Your task to perform on an android device: manage bookmarks in the chrome app Image 0: 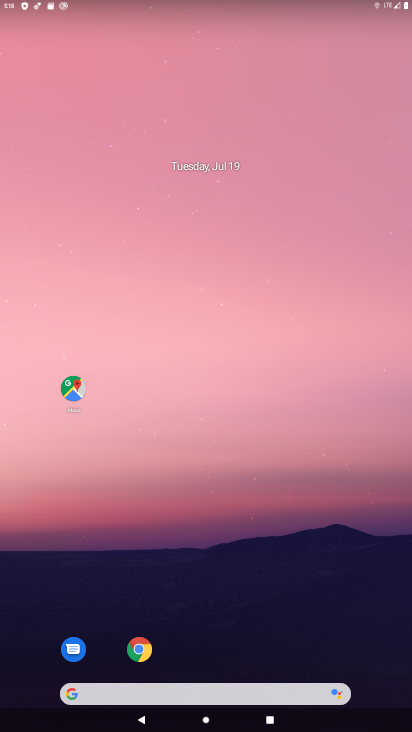
Step 0: drag from (340, 619) to (298, 165)
Your task to perform on an android device: manage bookmarks in the chrome app Image 1: 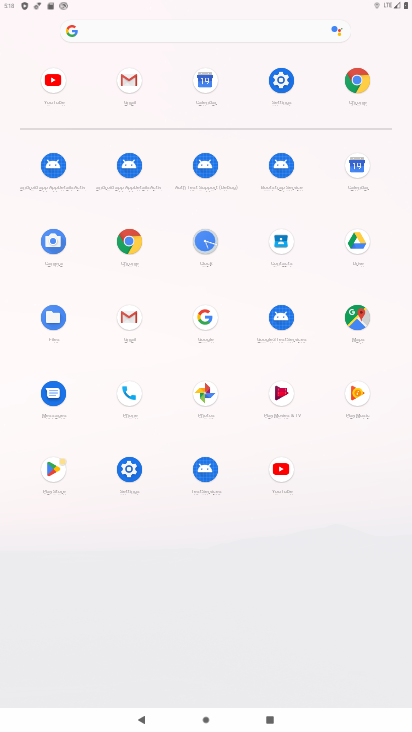
Step 1: click (358, 81)
Your task to perform on an android device: manage bookmarks in the chrome app Image 2: 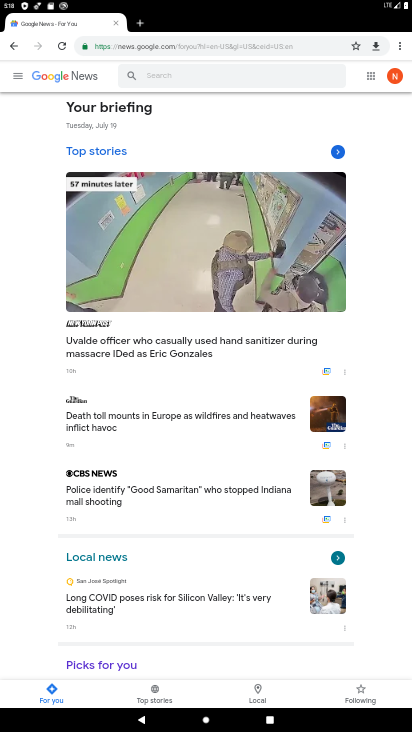
Step 2: drag from (397, 39) to (309, 126)
Your task to perform on an android device: manage bookmarks in the chrome app Image 3: 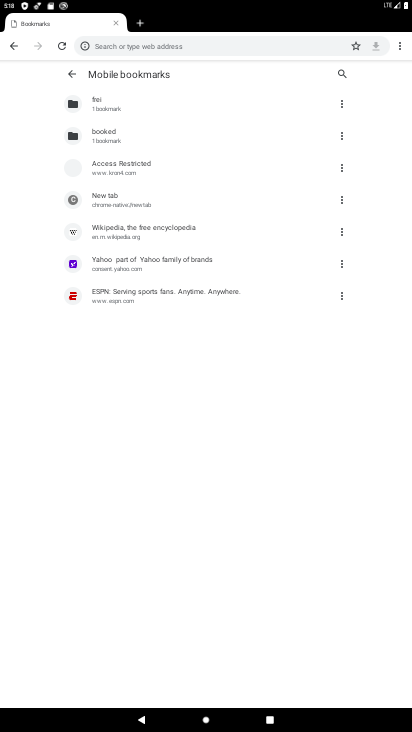
Step 3: click (338, 291)
Your task to perform on an android device: manage bookmarks in the chrome app Image 4: 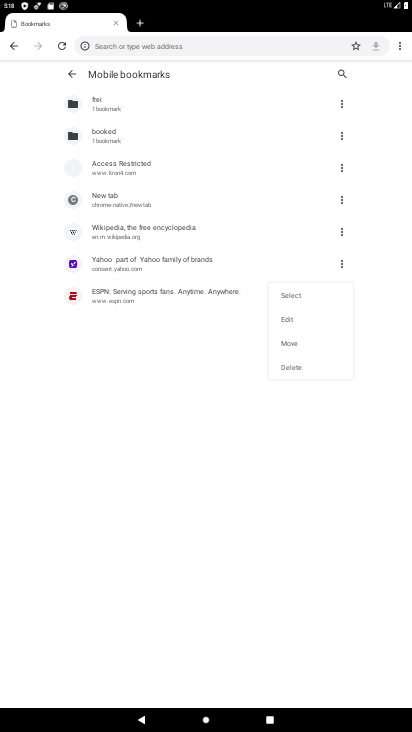
Step 4: click (290, 319)
Your task to perform on an android device: manage bookmarks in the chrome app Image 5: 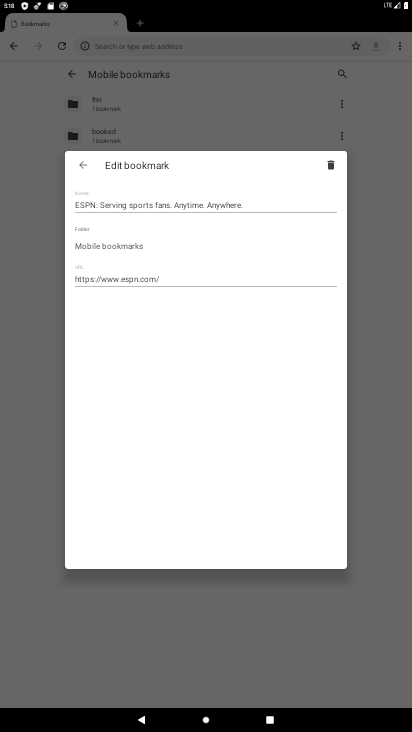
Step 5: click (229, 200)
Your task to perform on an android device: manage bookmarks in the chrome app Image 6: 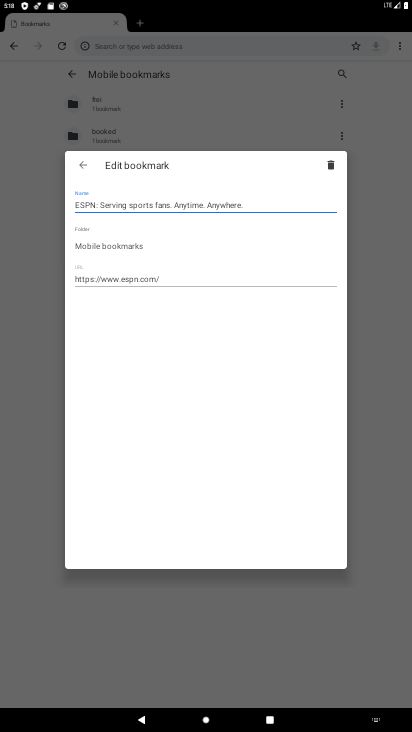
Step 6: click (87, 165)
Your task to perform on an android device: manage bookmarks in the chrome app Image 7: 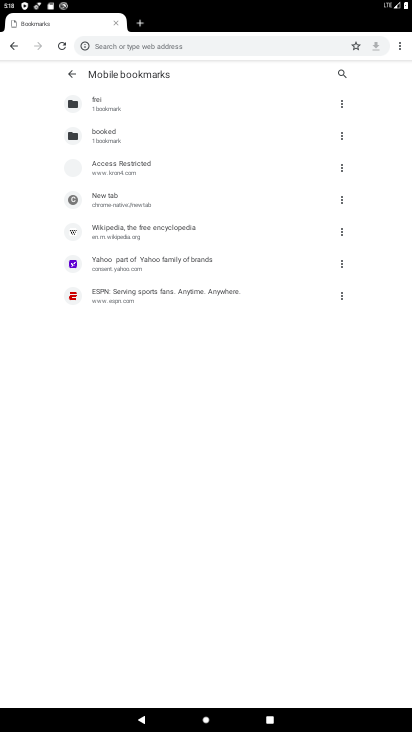
Step 7: task complete